Your task to perform on an android device: see creations saved in the google photos Image 0: 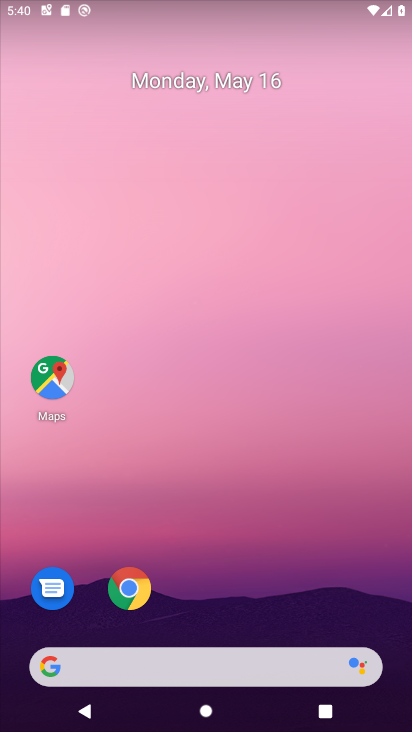
Step 0: drag from (272, 504) to (243, 85)
Your task to perform on an android device: see creations saved in the google photos Image 1: 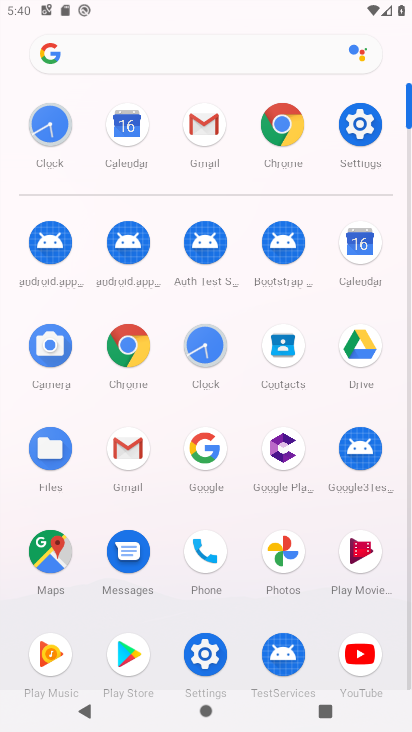
Step 1: click (289, 525)
Your task to perform on an android device: see creations saved in the google photos Image 2: 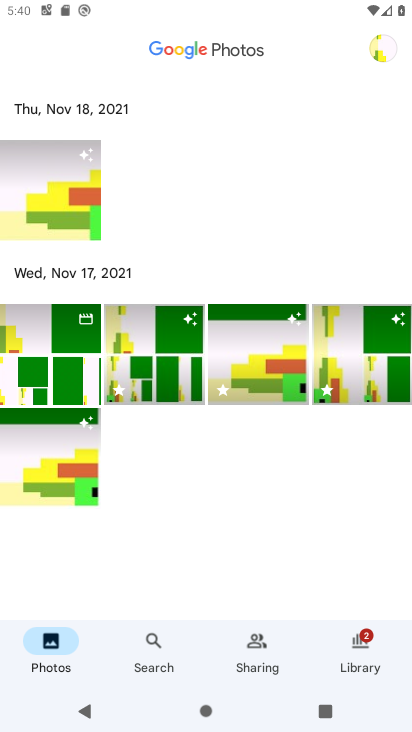
Step 2: click (138, 642)
Your task to perform on an android device: see creations saved in the google photos Image 3: 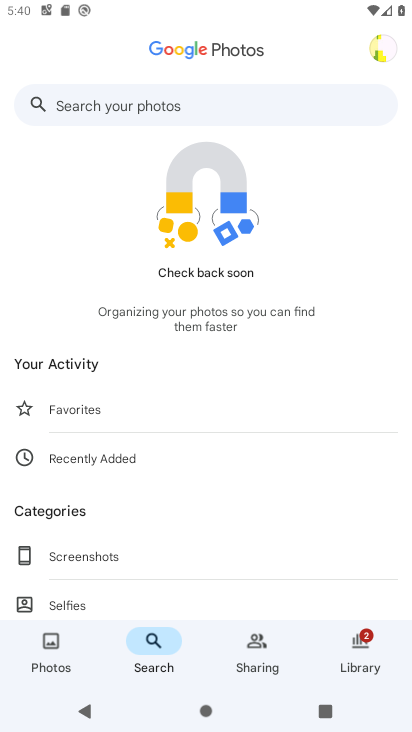
Step 3: click (155, 102)
Your task to perform on an android device: see creations saved in the google photos Image 4: 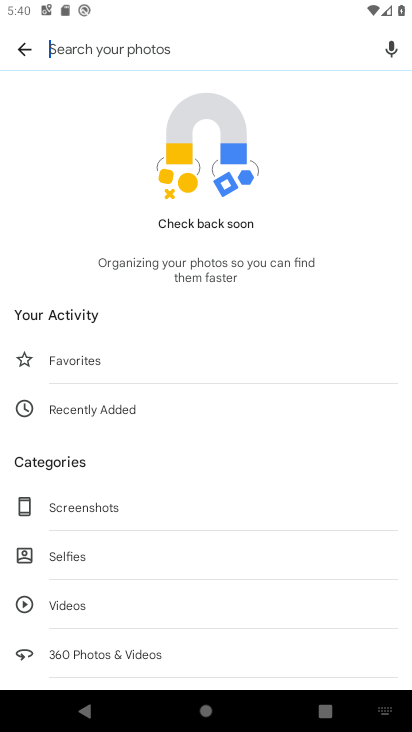
Step 4: type "creations"
Your task to perform on an android device: see creations saved in the google photos Image 5: 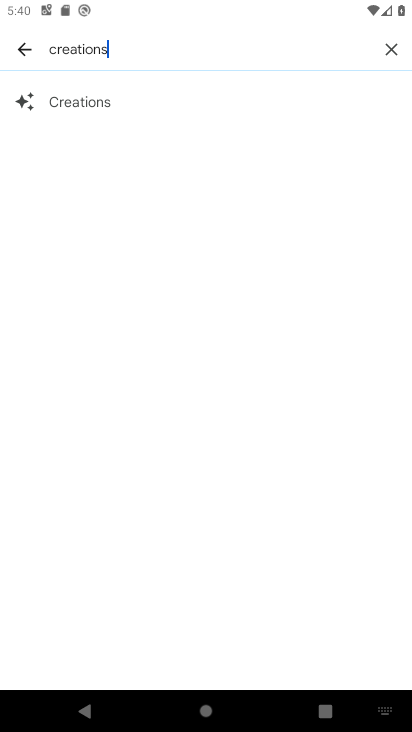
Step 5: type ""
Your task to perform on an android device: see creations saved in the google photos Image 6: 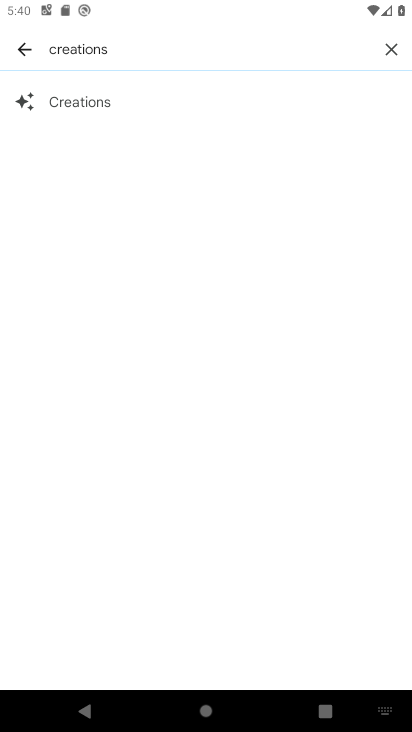
Step 6: click (159, 87)
Your task to perform on an android device: see creations saved in the google photos Image 7: 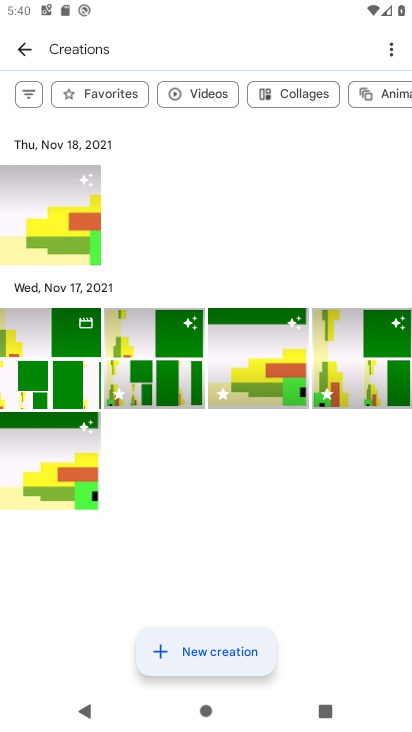
Step 7: task complete